Your task to perform on an android device: toggle show notifications on the lock screen Image 0: 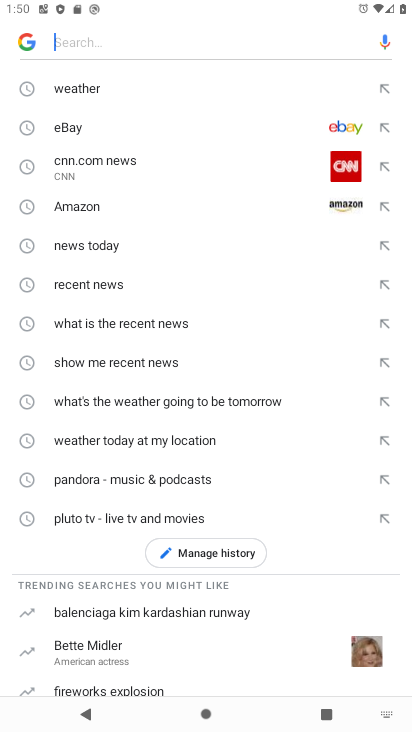
Step 0: press home button
Your task to perform on an android device: toggle show notifications on the lock screen Image 1: 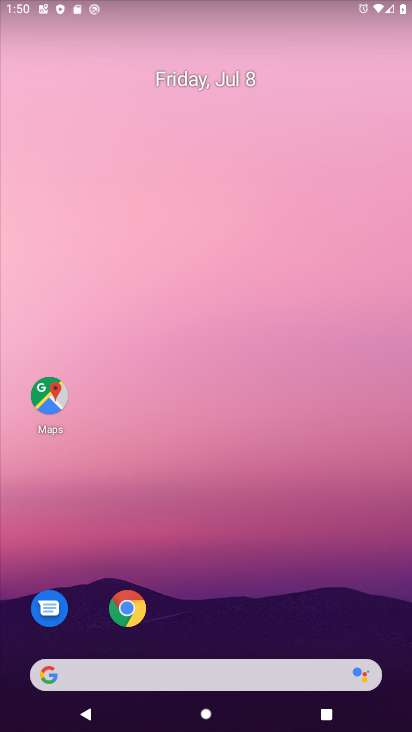
Step 1: drag from (227, 6) to (277, 536)
Your task to perform on an android device: toggle show notifications on the lock screen Image 2: 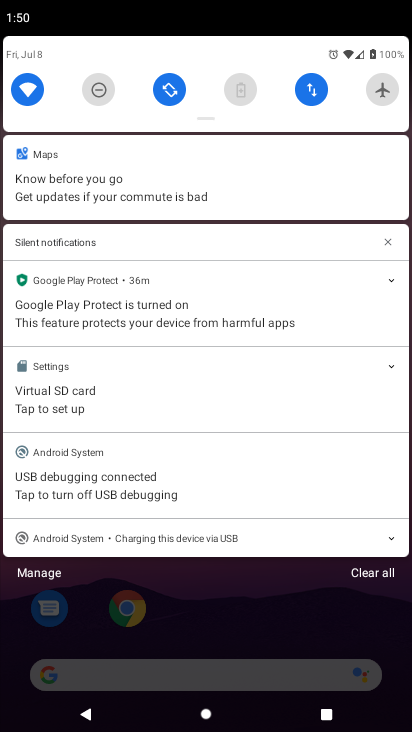
Step 2: drag from (201, 51) to (207, 506)
Your task to perform on an android device: toggle show notifications on the lock screen Image 3: 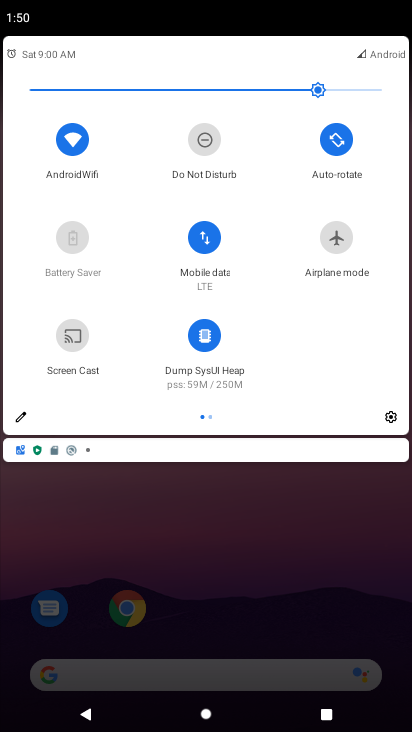
Step 3: click (391, 418)
Your task to perform on an android device: toggle show notifications on the lock screen Image 4: 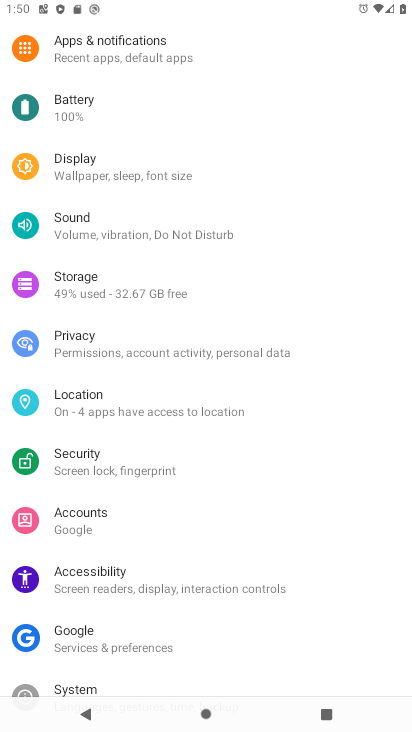
Step 4: click (174, 47)
Your task to perform on an android device: toggle show notifications on the lock screen Image 5: 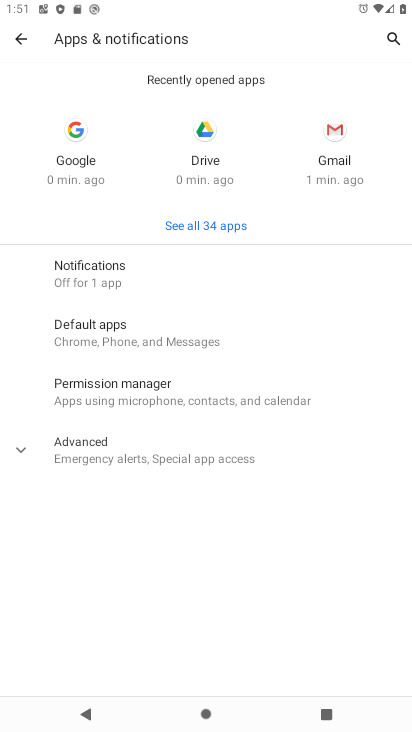
Step 5: click (148, 279)
Your task to perform on an android device: toggle show notifications on the lock screen Image 6: 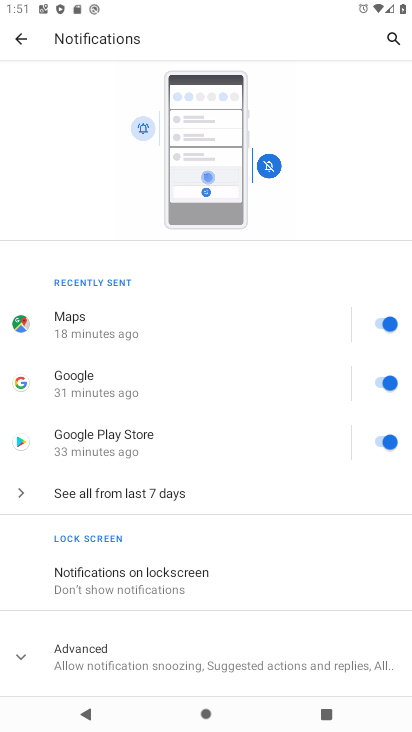
Step 6: click (175, 579)
Your task to perform on an android device: toggle show notifications on the lock screen Image 7: 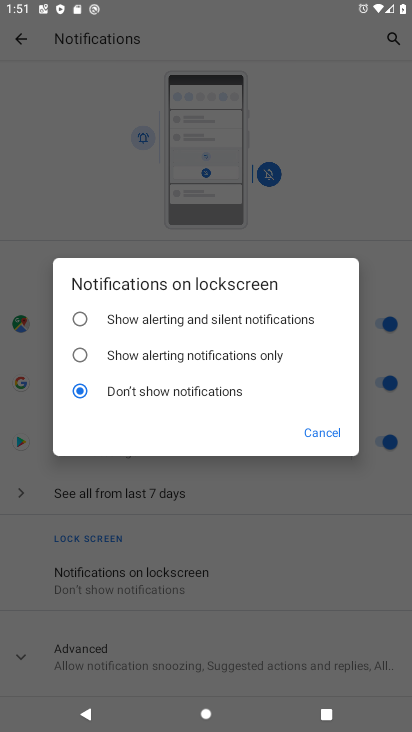
Step 7: click (314, 321)
Your task to perform on an android device: toggle show notifications on the lock screen Image 8: 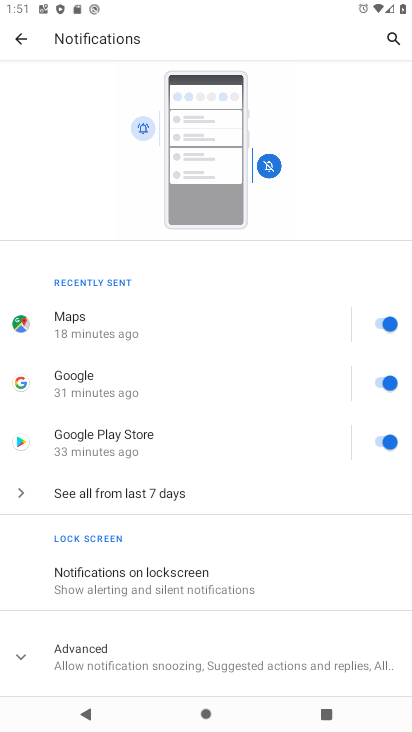
Step 8: task complete